Your task to perform on an android device: Is it going to rain this weekend? Image 0: 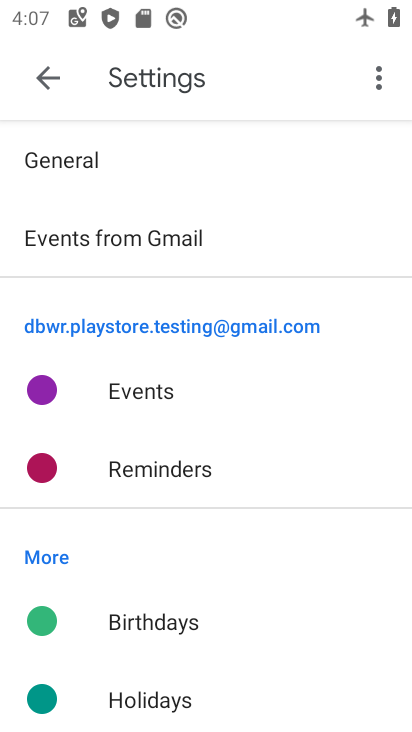
Step 0: press home button
Your task to perform on an android device: Is it going to rain this weekend? Image 1: 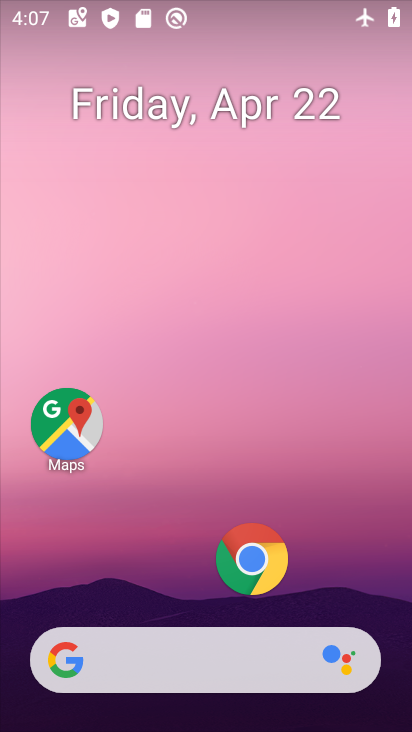
Step 1: drag from (159, 490) to (225, 188)
Your task to perform on an android device: Is it going to rain this weekend? Image 2: 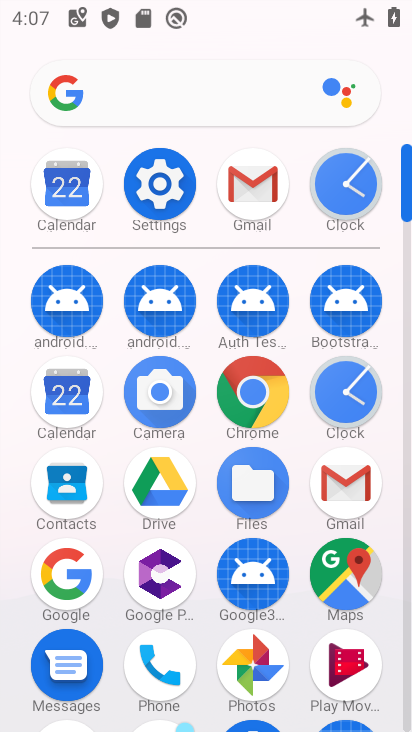
Step 2: press home button
Your task to perform on an android device: Is it going to rain this weekend? Image 3: 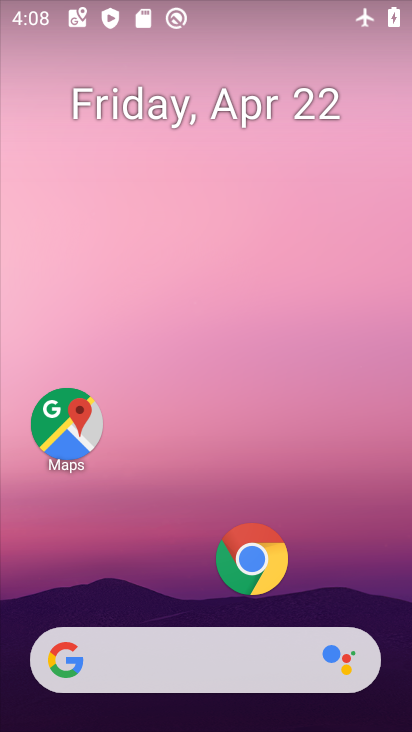
Step 3: click (111, 656)
Your task to perform on an android device: Is it going to rain this weekend? Image 4: 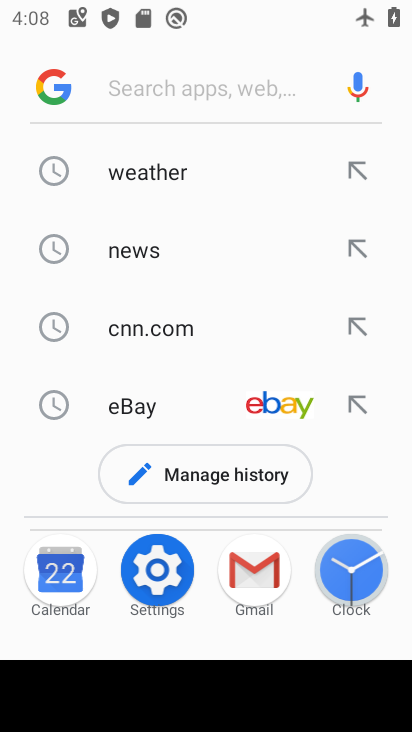
Step 4: click (147, 176)
Your task to perform on an android device: Is it going to rain this weekend? Image 5: 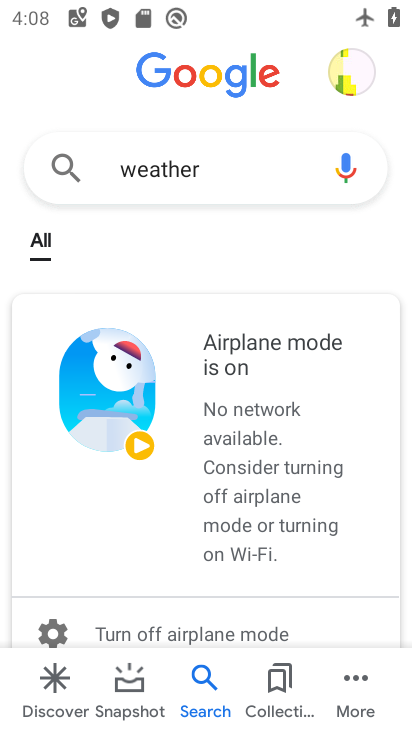
Step 5: task complete